Your task to perform on an android device: What's the weather going to be this weekend? Image 0: 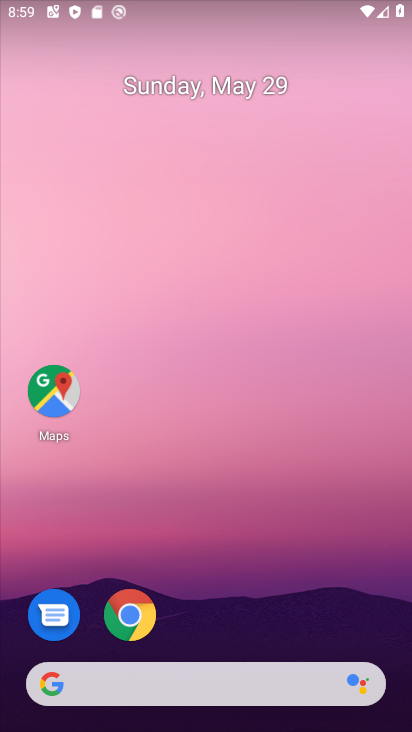
Step 0: click (254, 681)
Your task to perform on an android device: What's the weather going to be this weekend? Image 1: 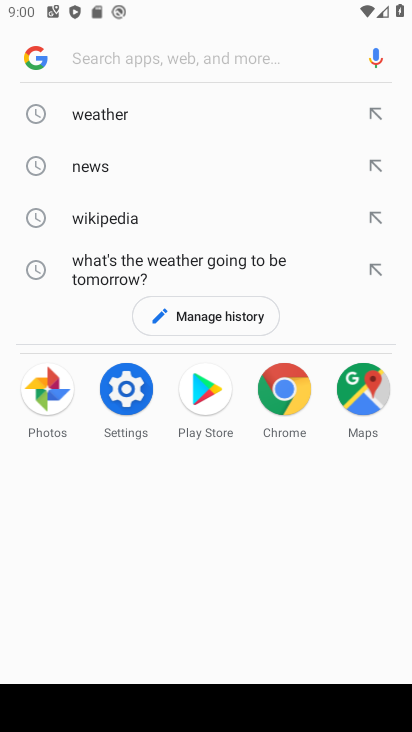
Step 1: type "what's the weather going to be this weekend"
Your task to perform on an android device: What's the weather going to be this weekend? Image 2: 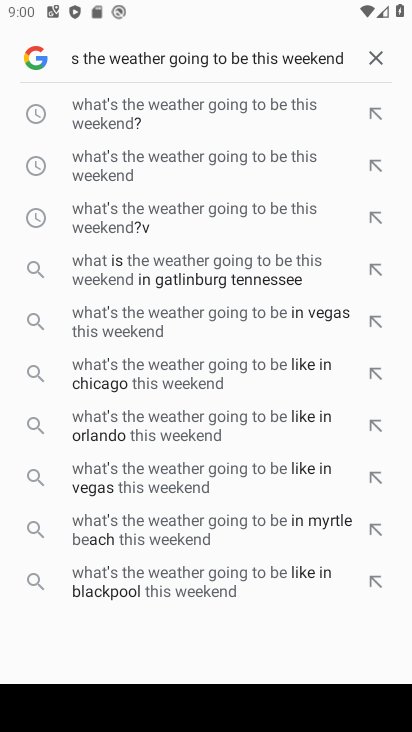
Step 2: click (157, 116)
Your task to perform on an android device: What's the weather going to be this weekend? Image 3: 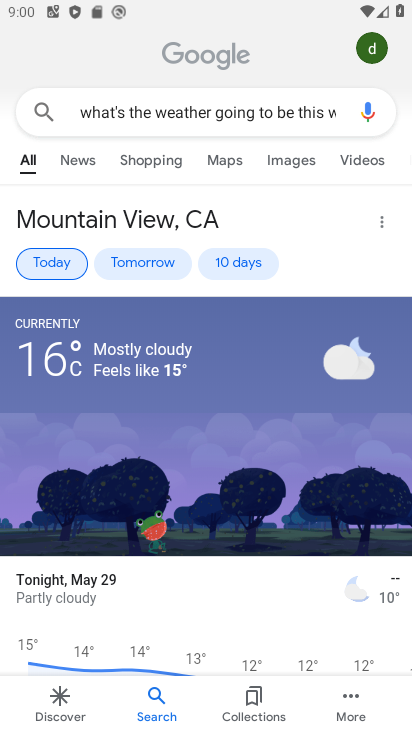
Step 3: click (242, 262)
Your task to perform on an android device: What's the weather going to be this weekend? Image 4: 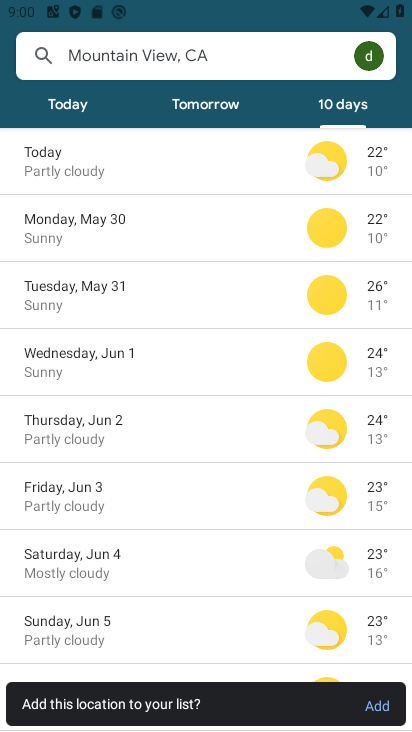
Step 4: task complete